Your task to perform on an android device: Open Wikipedia Image 0: 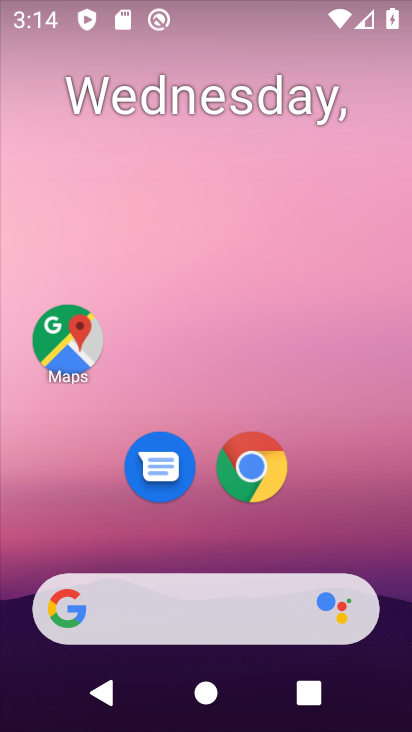
Step 0: click (269, 478)
Your task to perform on an android device: Open Wikipedia Image 1: 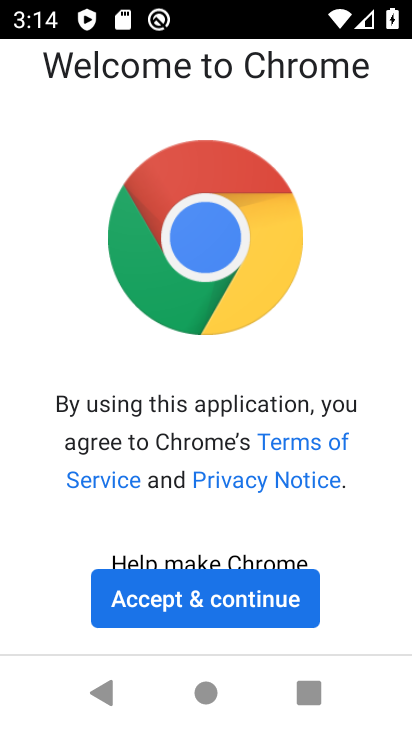
Step 1: click (275, 613)
Your task to perform on an android device: Open Wikipedia Image 2: 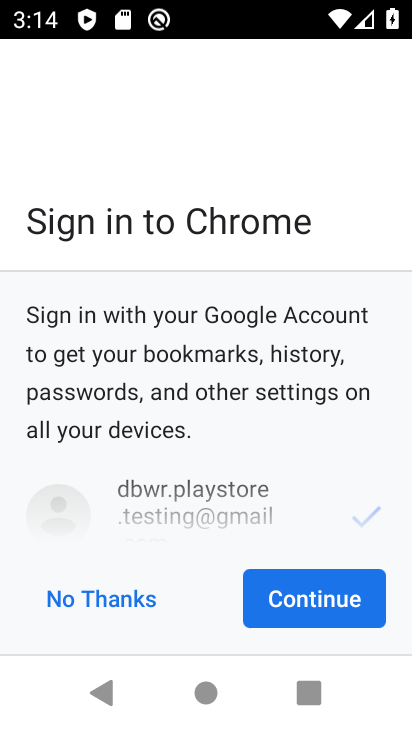
Step 2: click (346, 589)
Your task to perform on an android device: Open Wikipedia Image 3: 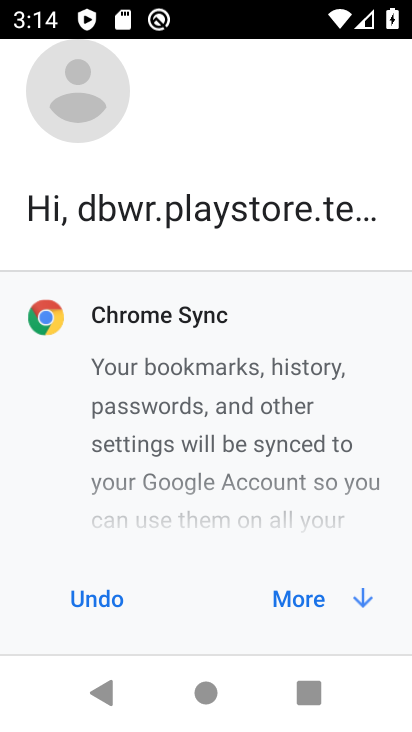
Step 3: click (355, 593)
Your task to perform on an android device: Open Wikipedia Image 4: 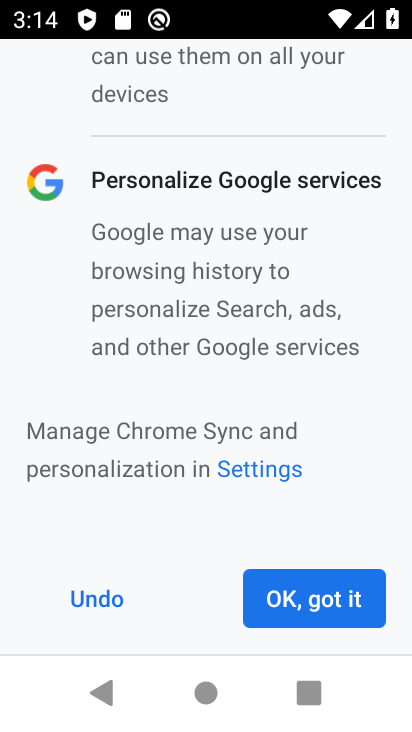
Step 4: click (335, 596)
Your task to perform on an android device: Open Wikipedia Image 5: 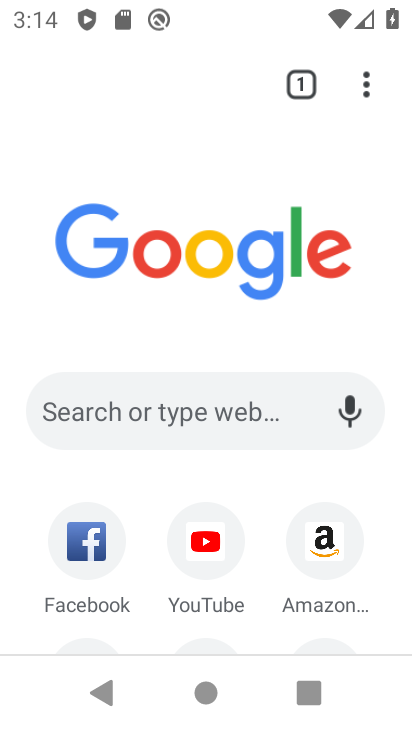
Step 5: drag from (265, 580) to (265, 297)
Your task to perform on an android device: Open Wikipedia Image 6: 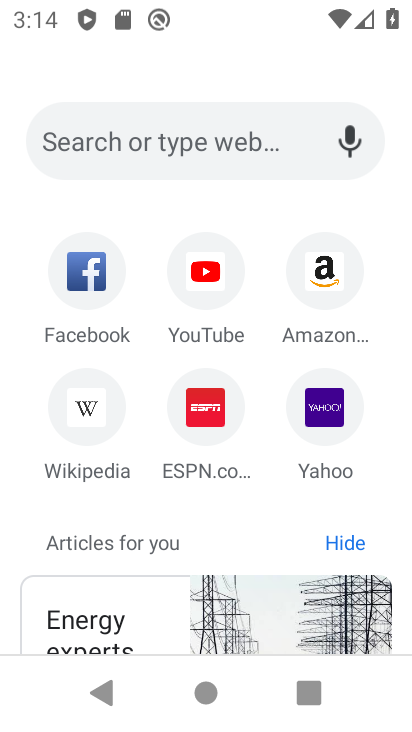
Step 6: click (101, 422)
Your task to perform on an android device: Open Wikipedia Image 7: 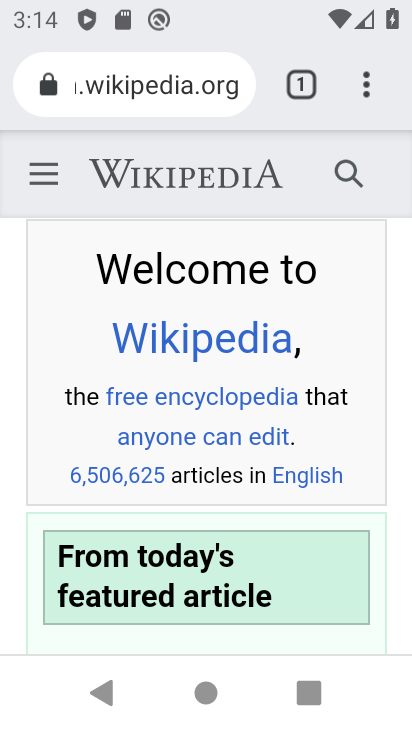
Step 7: task complete